Your task to perform on an android device: Open the map Image 0: 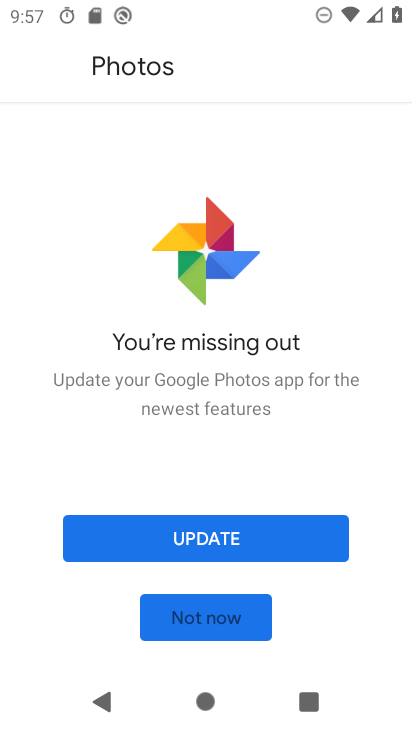
Step 0: press home button
Your task to perform on an android device: Open the map Image 1: 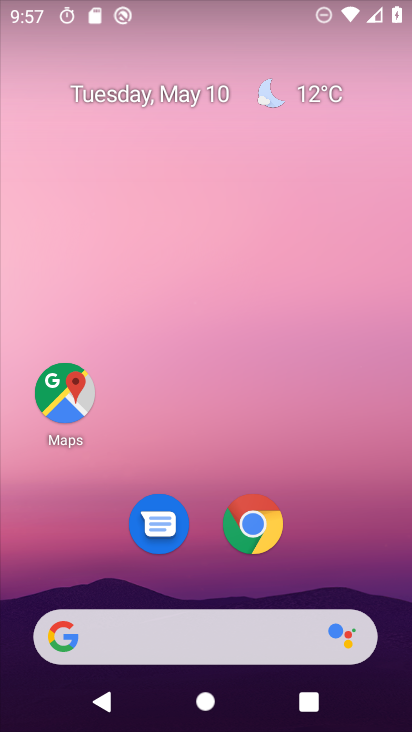
Step 1: click (61, 384)
Your task to perform on an android device: Open the map Image 2: 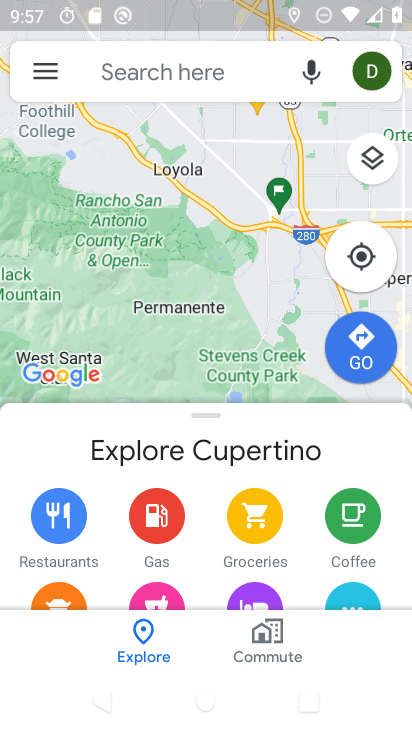
Step 2: task complete